Your task to perform on an android device: Go to notification settings Image 0: 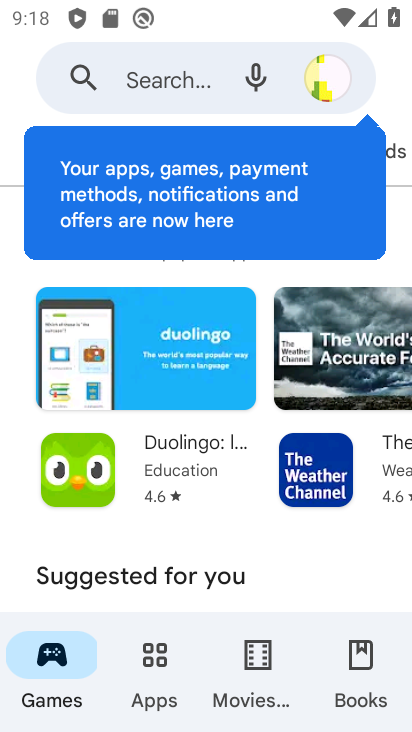
Step 0: press back button
Your task to perform on an android device: Go to notification settings Image 1: 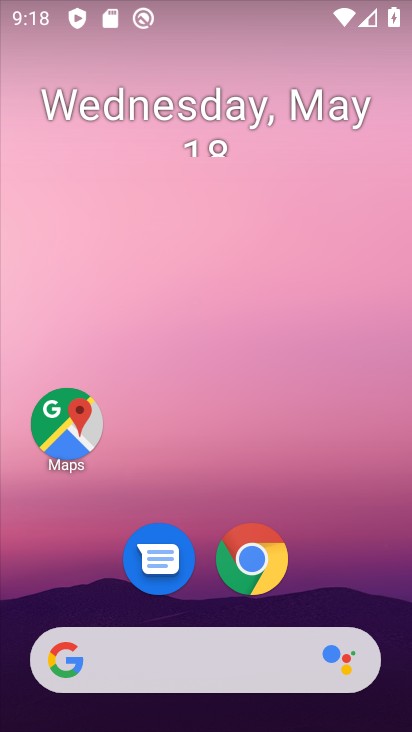
Step 1: drag from (333, 520) to (260, 27)
Your task to perform on an android device: Go to notification settings Image 2: 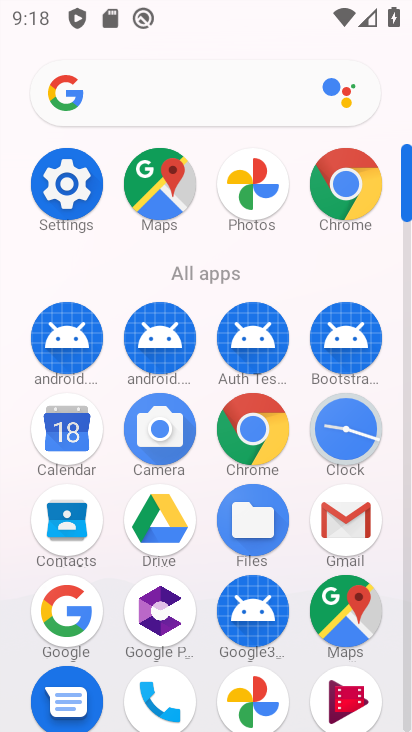
Step 2: drag from (3, 647) to (4, 339)
Your task to perform on an android device: Go to notification settings Image 3: 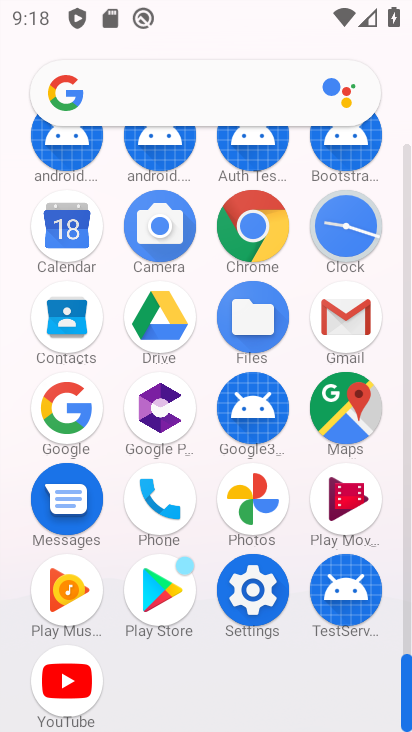
Step 3: click (249, 586)
Your task to perform on an android device: Go to notification settings Image 4: 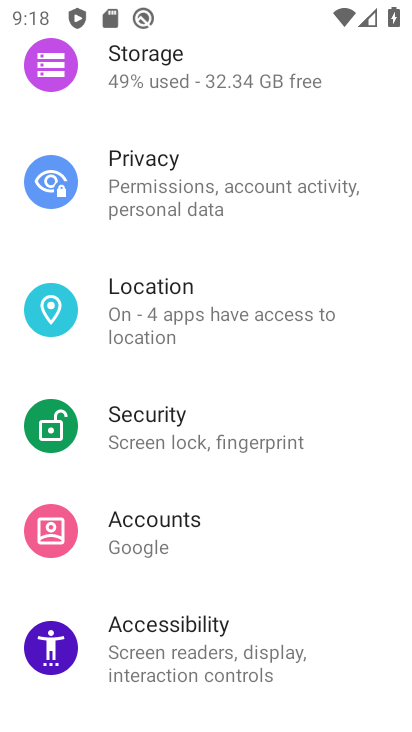
Step 4: drag from (227, 142) to (247, 581)
Your task to perform on an android device: Go to notification settings Image 5: 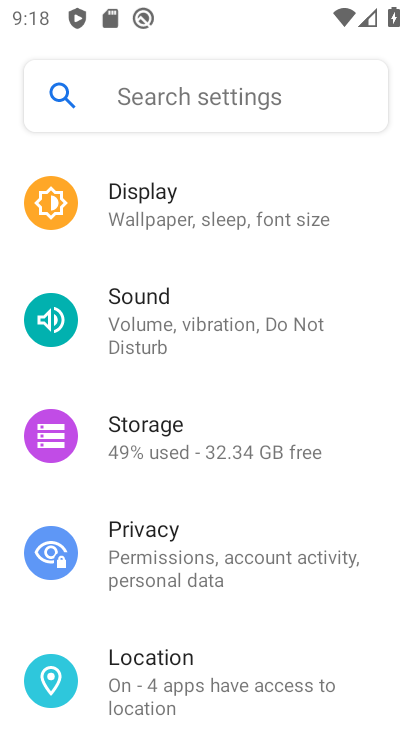
Step 5: drag from (255, 614) to (260, 190)
Your task to perform on an android device: Go to notification settings Image 6: 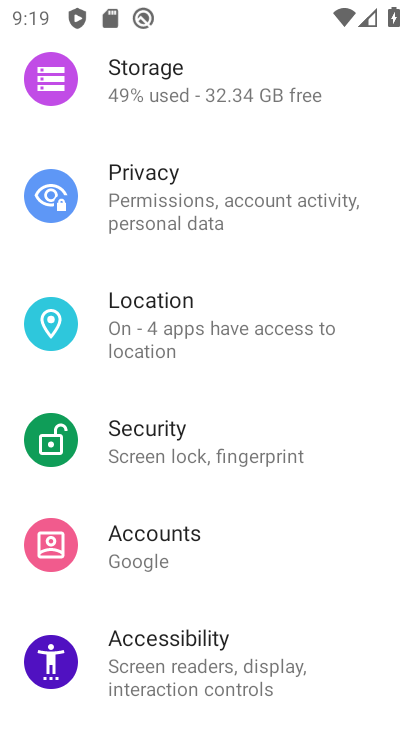
Step 6: drag from (265, 594) to (277, 130)
Your task to perform on an android device: Go to notification settings Image 7: 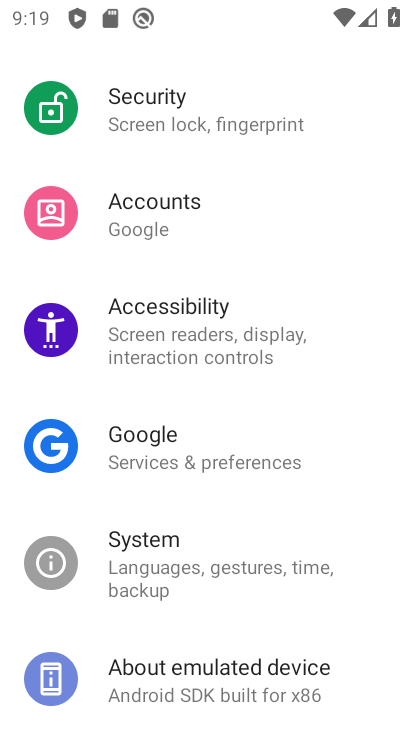
Step 7: drag from (264, 544) to (282, 134)
Your task to perform on an android device: Go to notification settings Image 8: 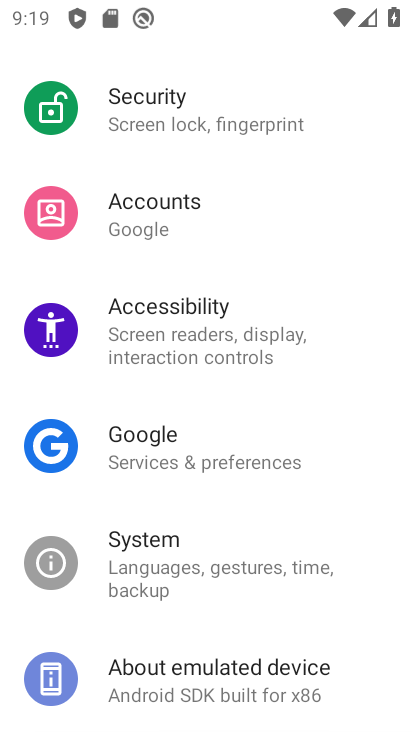
Step 8: drag from (270, 202) to (271, 629)
Your task to perform on an android device: Go to notification settings Image 9: 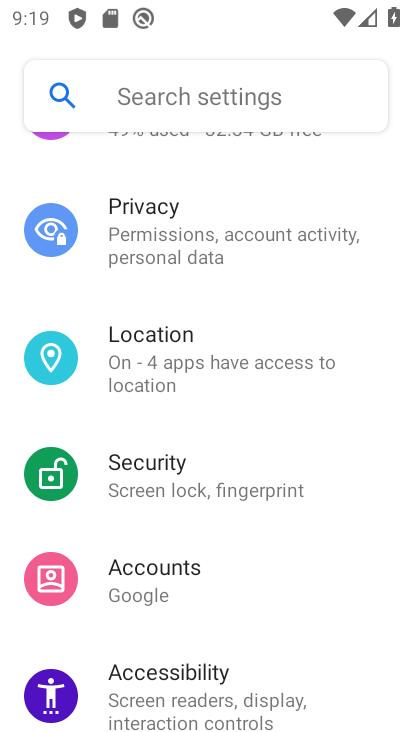
Step 9: drag from (266, 231) to (247, 631)
Your task to perform on an android device: Go to notification settings Image 10: 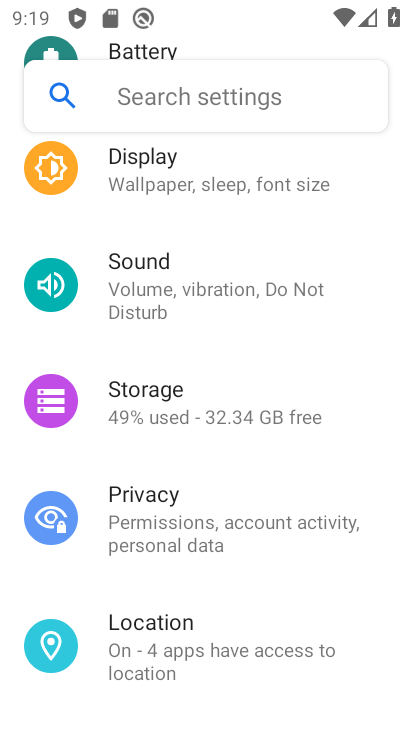
Step 10: drag from (287, 204) to (316, 674)
Your task to perform on an android device: Go to notification settings Image 11: 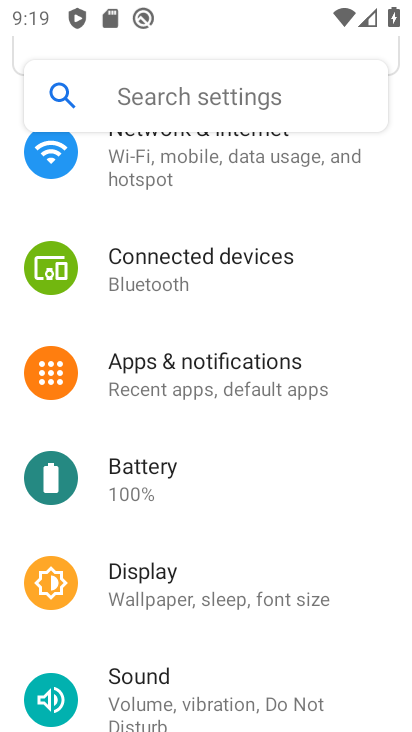
Step 11: drag from (253, 273) to (250, 650)
Your task to perform on an android device: Go to notification settings Image 12: 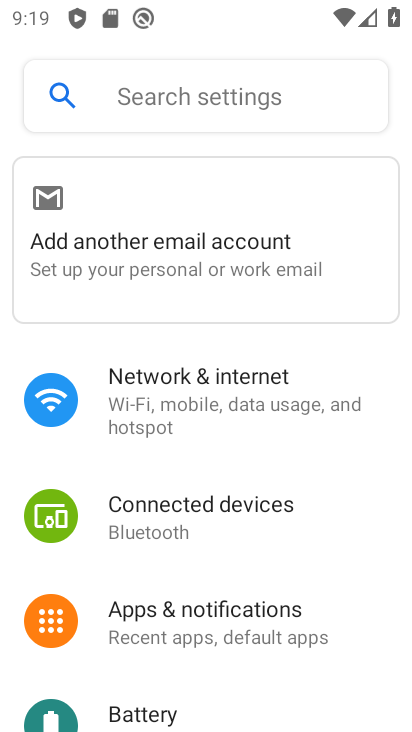
Step 12: click (199, 626)
Your task to perform on an android device: Go to notification settings Image 13: 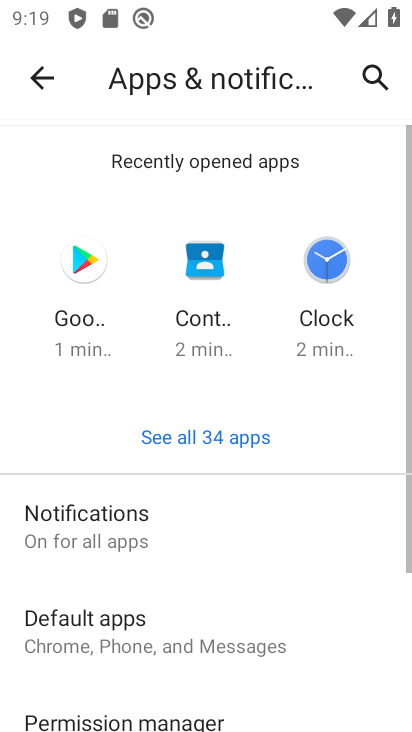
Step 13: drag from (250, 645) to (252, 182)
Your task to perform on an android device: Go to notification settings Image 14: 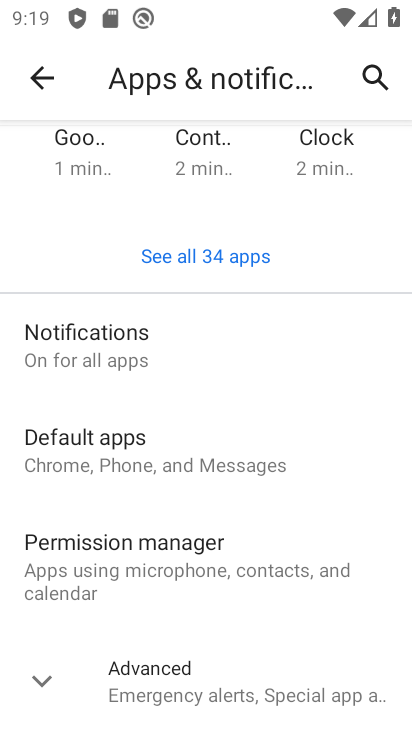
Step 14: click (51, 676)
Your task to perform on an android device: Go to notification settings Image 15: 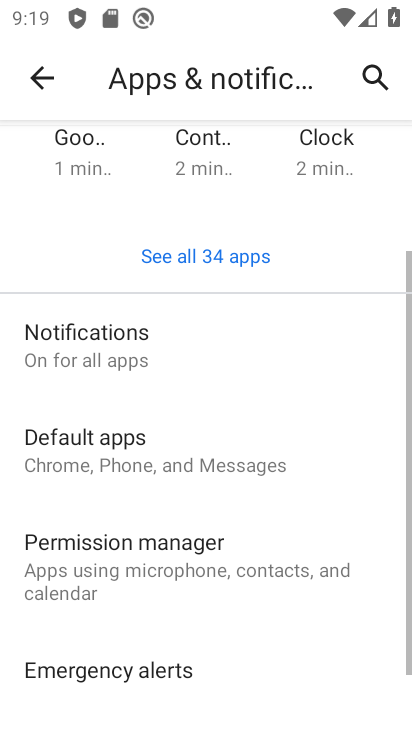
Step 15: task complete